Your task to perform on an android device: toggle pop-ups in chrome Image 0: 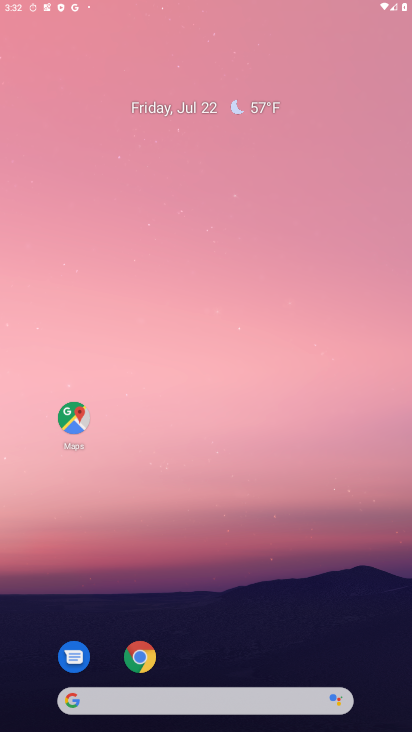
Step 0: drag from (226, 492) to (219, 229)
Your task to perform on an android device: toggle pop-ups in chrome Image 1: 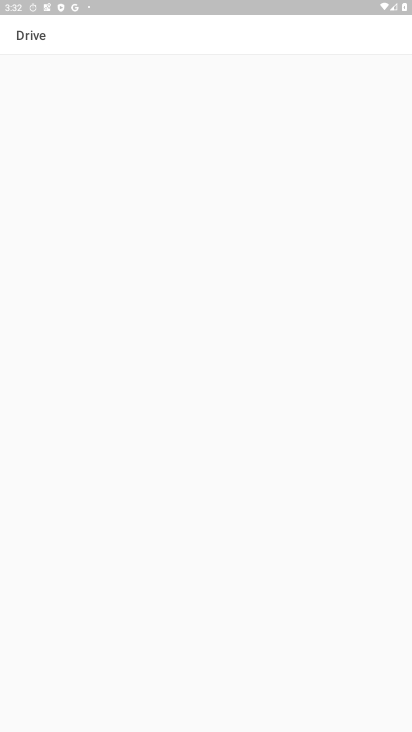
Step 1: press home button
Your task to perform on an android device: toggle pop-ups in chrome Image 2: 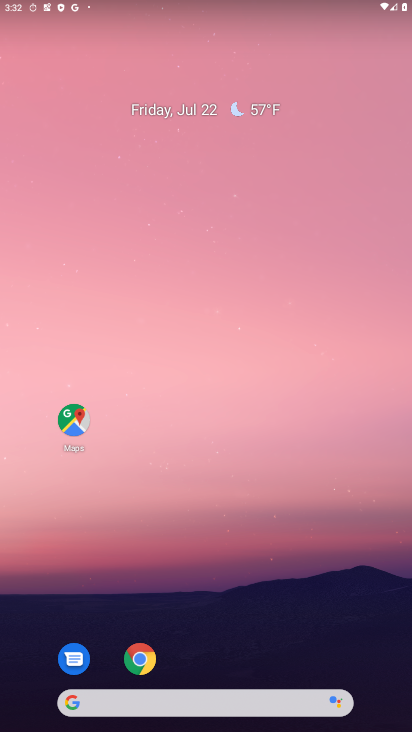
Step 2: click (148, 663)
Your task to perform on an android device: toggle pop-ups in chrome Image 3: 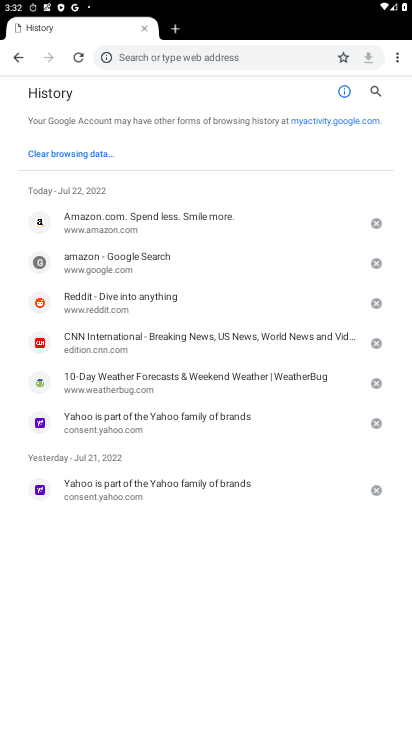
Step 3: click (393, 57)
Your task to perform on an android device: toggle pop-ups in chrome Image 4: 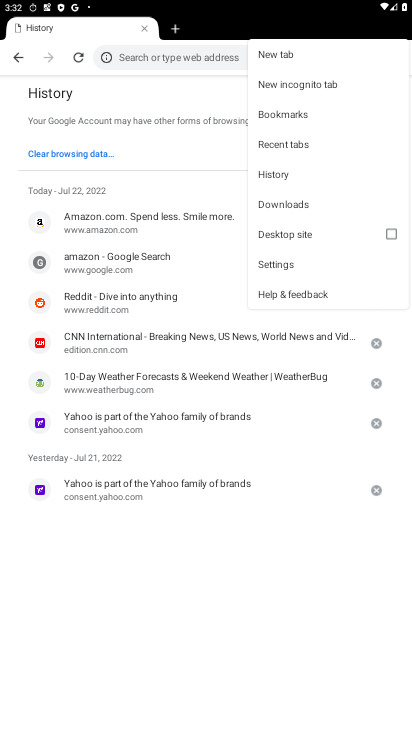
Step 4: click (304, 271)
Your task to perform on an android device: toggle pop-ups in chrome Image 5: 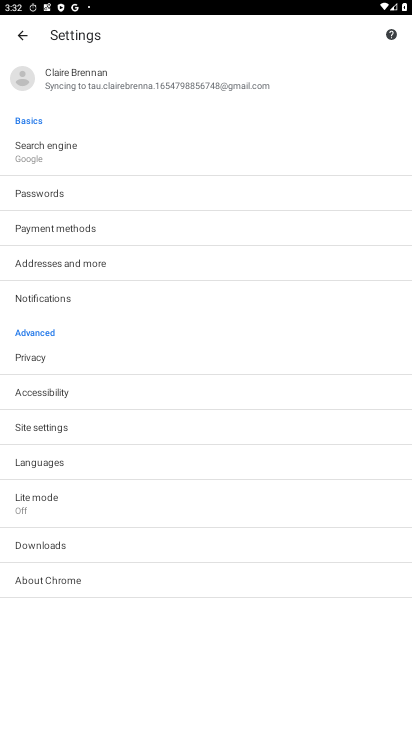
Step 5: click (56, 428)
Your task to perform on an android device: toggle pop-ups in chrome Image 6: 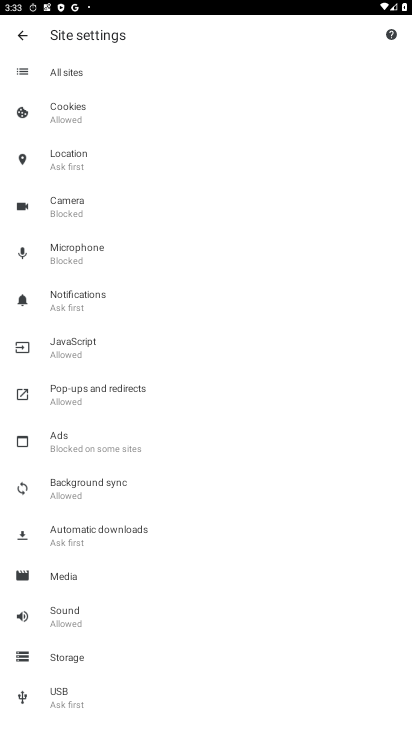
Step 6: click (99, 400)
Your task to perform on an android device: toggle pop-ups in chrome Image 7: 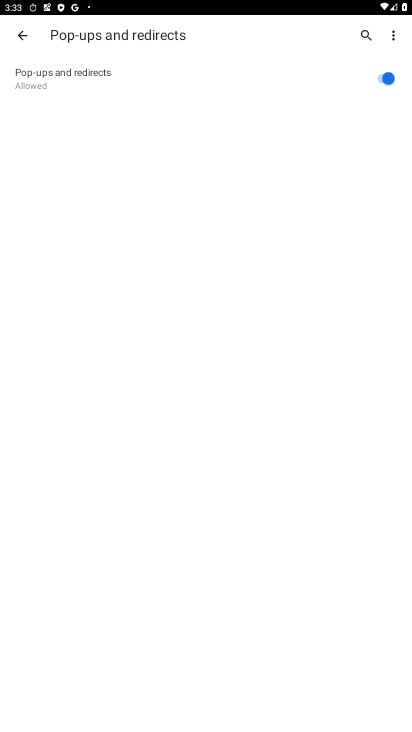
Step 7: click (382, 72)
Your task to perform on an android device: toggle pop-ups in chrome Image 8: 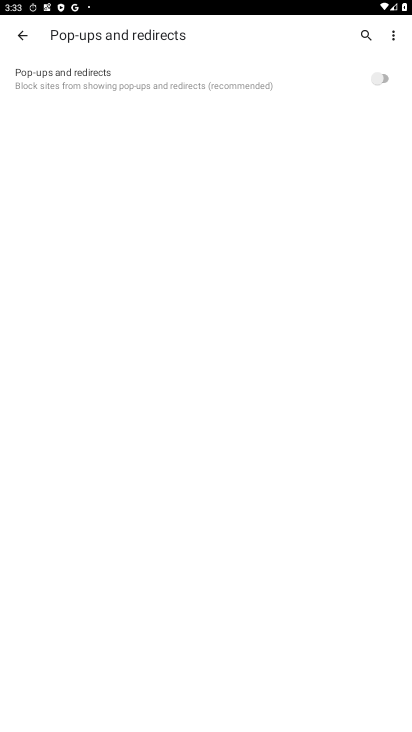
Step 8: task complete